Your task to perform on an android device: turn off data saver in the chrome app Image 0: 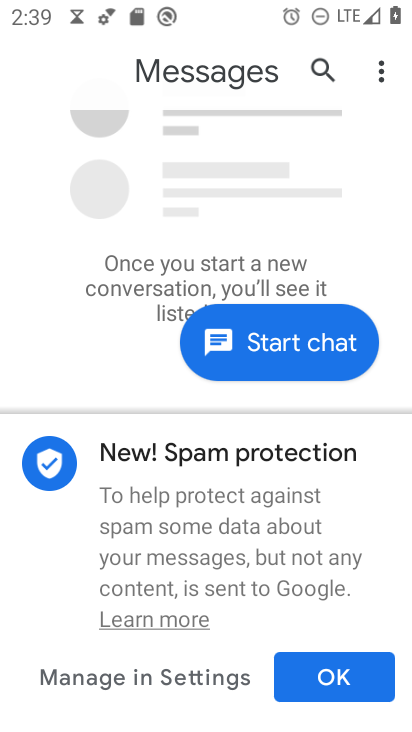
Step 0: press home button
Your task to perform on an android device: turn off data saver in the chrome app Image 1: 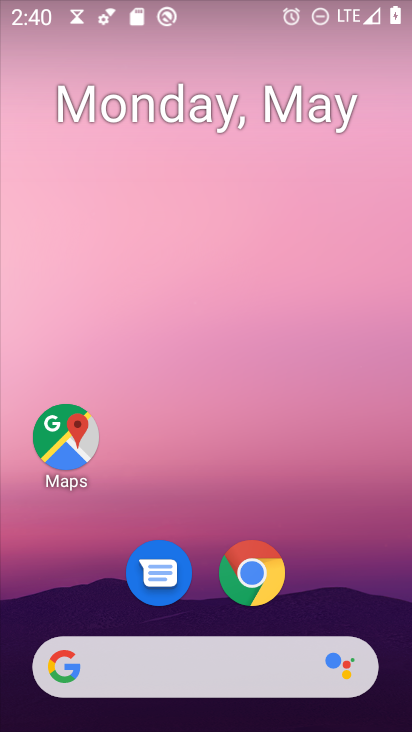
Step 1: drag from (243, 626) to (239, 2)
Your task to perform on an android device: turn off data saver in the chrome app Image 2: 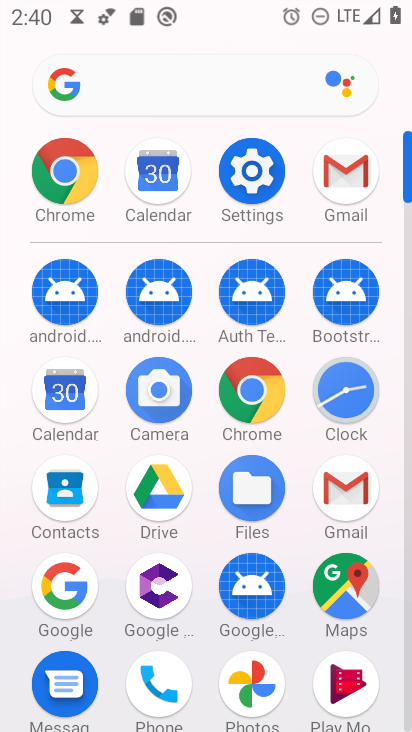
Step 2: click (263, 405)
Your task to perform on an android device: turn off data saver in the chrome app Image 3: 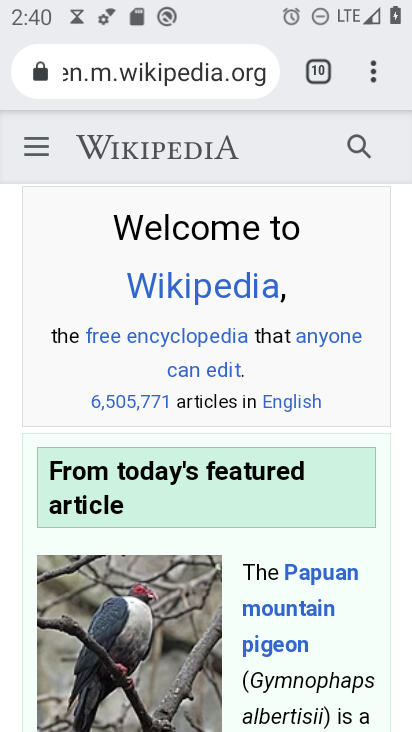
Step 3: drag from (386, 49) to (192, 585)
Your task to perform on an android device: turn off data saver in the chrome app Image 4: 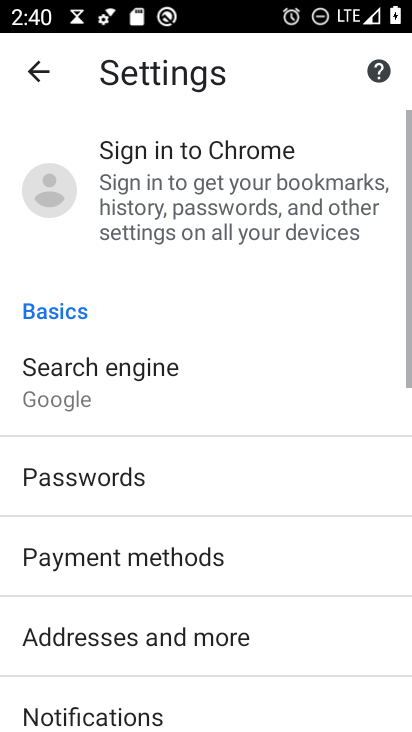
Step 4: drag from (209, 638) to (152, 62)
Your task to perform on an android device: turn off data saver in the chrome app Image 5: 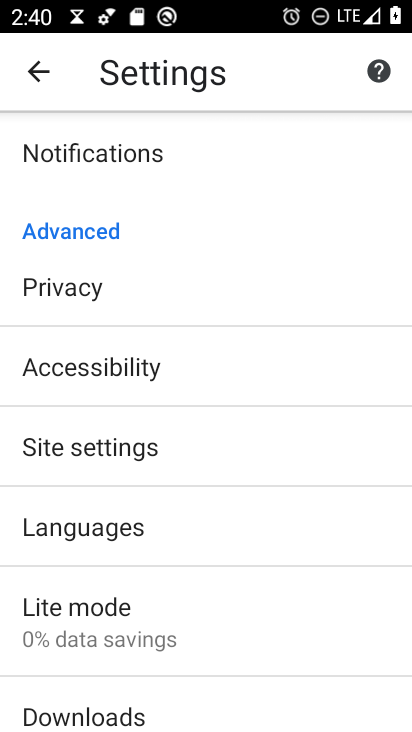
Step 5: click (192, 632)
Your task to perform on an android device: turn off data saver in the chrome app Image 6: 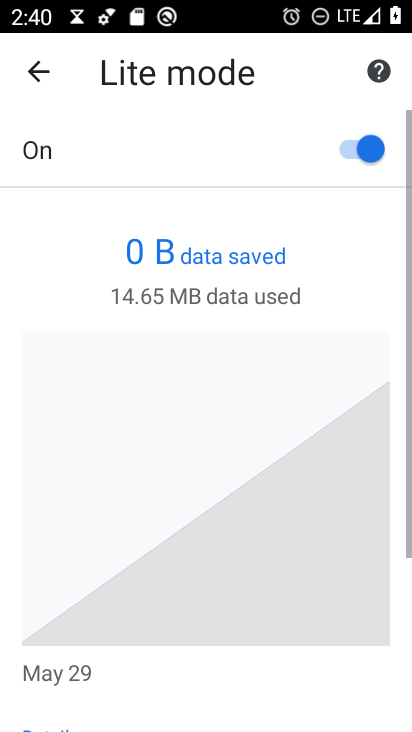
Step 6: click (349, 147)
Your task to perform on an android device: turn off data saver in the chrome app Image 7: 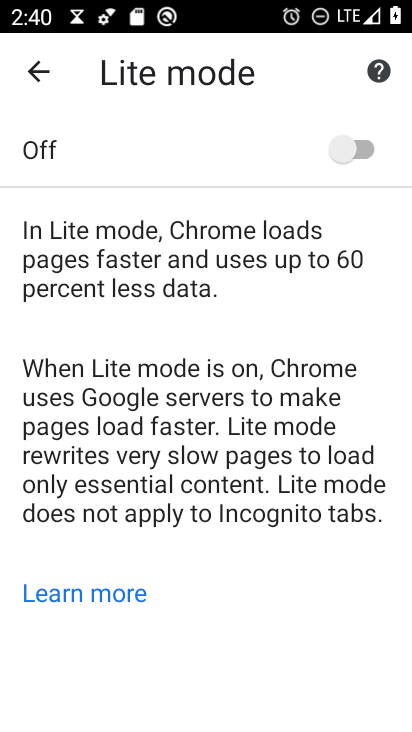
Step 7: task complete